Your task to perform on an android device: What's on my calendar today? Image 0: 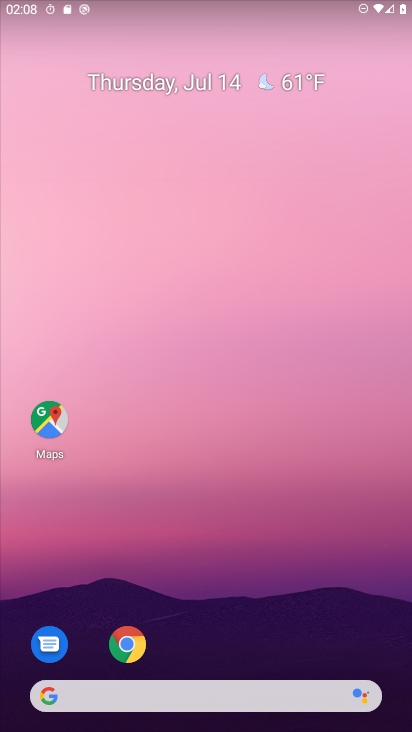
Step 0: drag from (318, 574) to (269, 166)
Your task to perform on an android device: What's on my calendar today? Image 1: 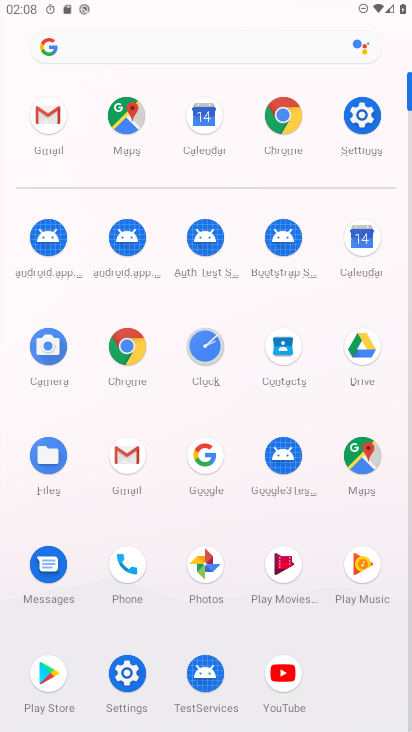
Step 1: click (356, 235)
Your task to perform on an android device: What's on my calendar today? Image 2: 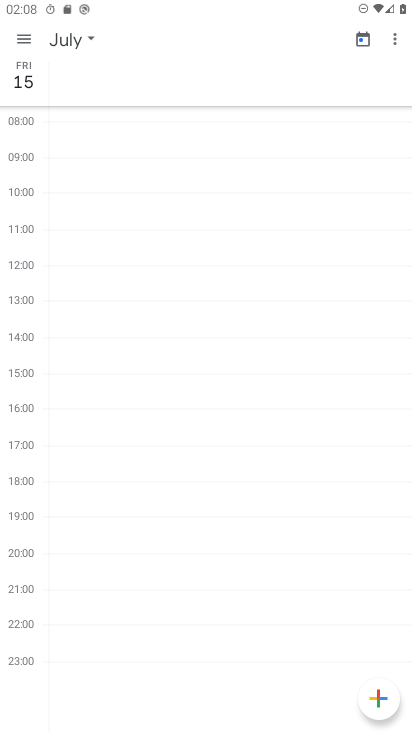
Step 2: click (78, 38)
Your task to perform on an android device: What's on my calendar today? Image 3: 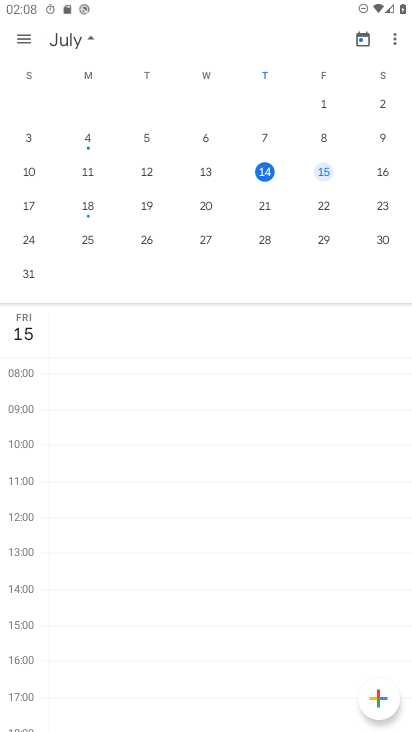
Step 3: click (267, 167)
Your task to perform on an android device: What's on my calendar today? Image 4: 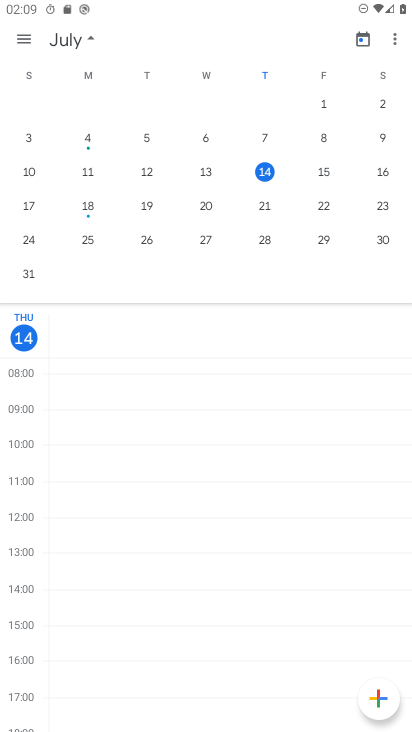
Step 4: task complete